Your task to perform on an android device: change alarm snooze length Image 0: 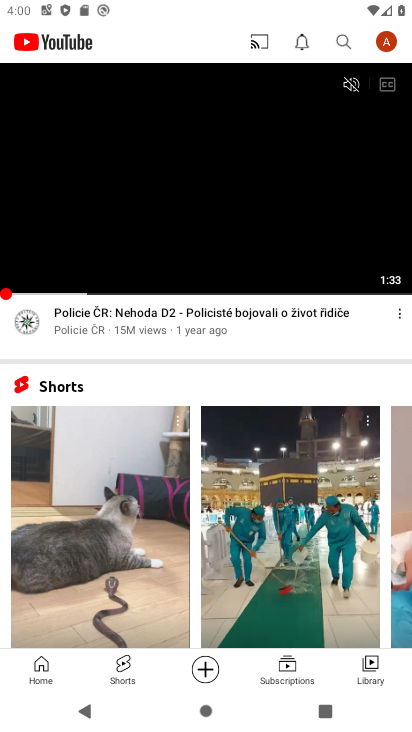
Step 0: press home button
Your task to perform on an android device: change alarm snooze length Image 1: 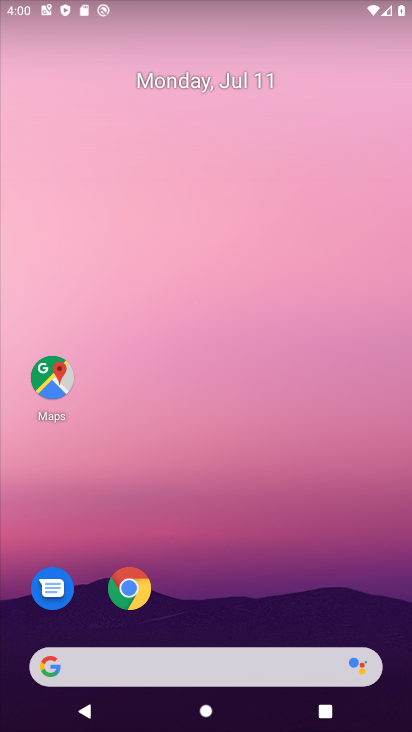
Step 1: drag from (325, 624) to (310, 184)
Your task to perform on an android device: change alarm snooze length Image 2: 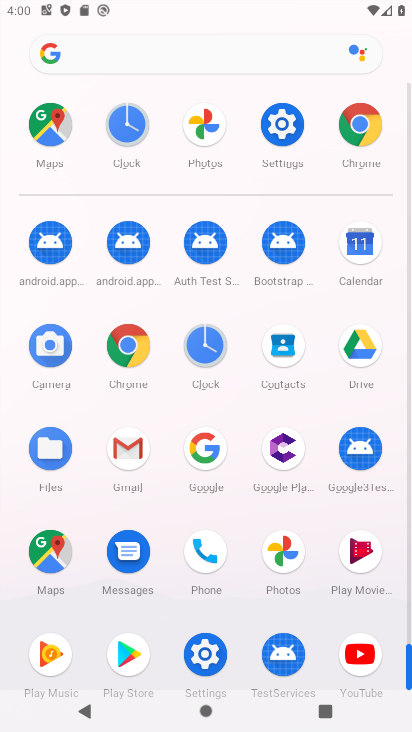
Step 2: click (204, 352)
Your task to perform on an android device: change alarm snooze length Image 3: 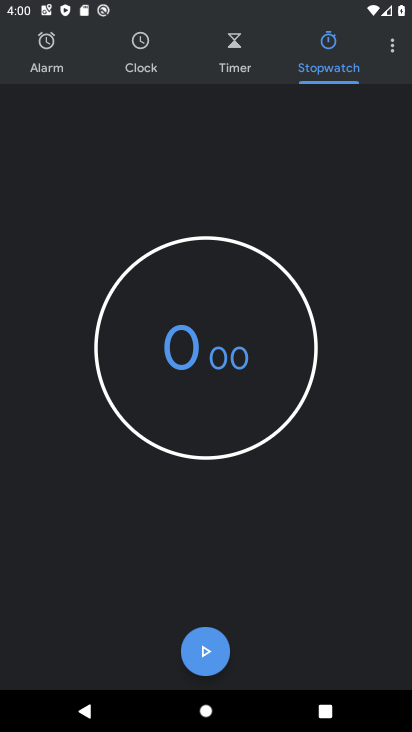
Step 3: click (388, 56)
Your task to perform on an android device: change alarm snooze length Image 4: 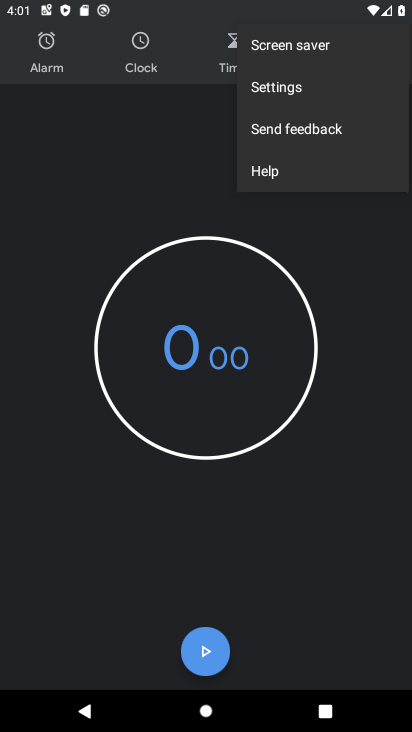
Step 4: click (313, 97)
Your task to perform on an android device: change alarm snooze length Image 5: 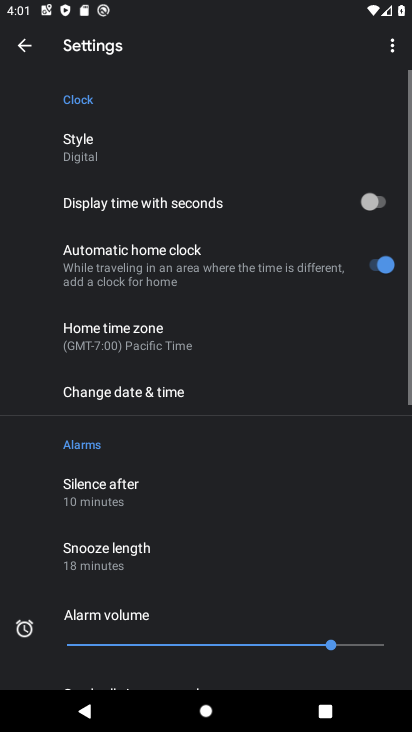
Step 5: drag from (331, 474) to (333, 371)
Your task to perform on an android device: change alarm snooze length Image 6: 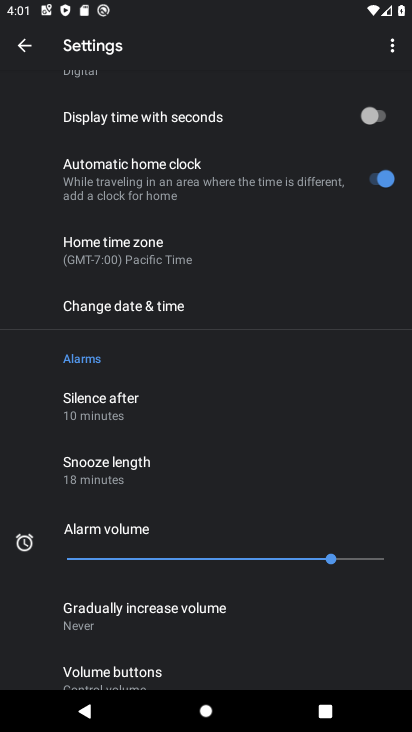
Step 6: drag from (328, 459) to (324, 302)
Your task to perform on an android device: change alarm snooze length Image 7: 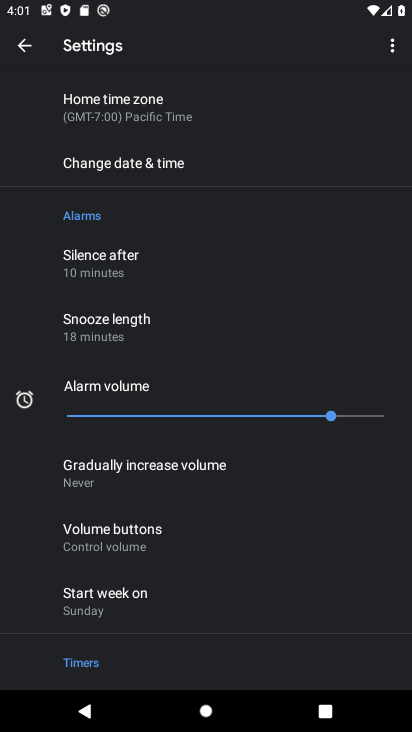
Step 7: drag from (320, 495) to (321, 382)
Your task to perform on an android device: change alarm snooze length Image 8: 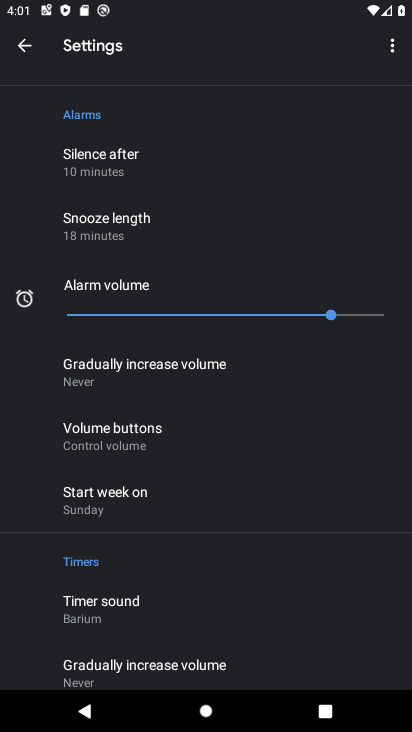
Step 8: drag from (327, 511) to (317, 384)
Your task to perform on an android device: change alarm snooze length Image 9: 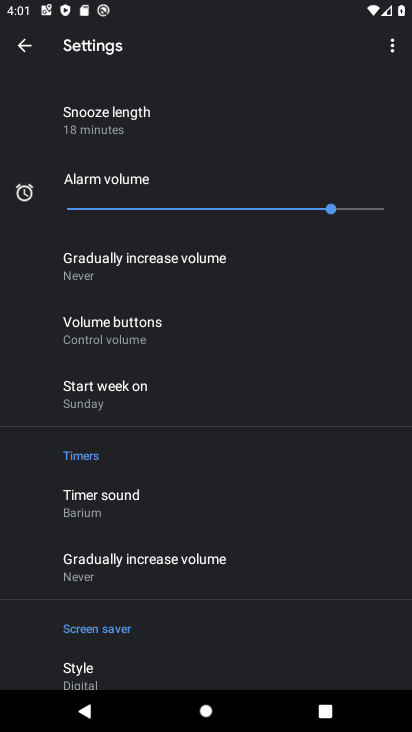
Step 9: drag from (313, 528) to (312, 365)
Your task to perform on an android device: change alarm snooze length Image 10: 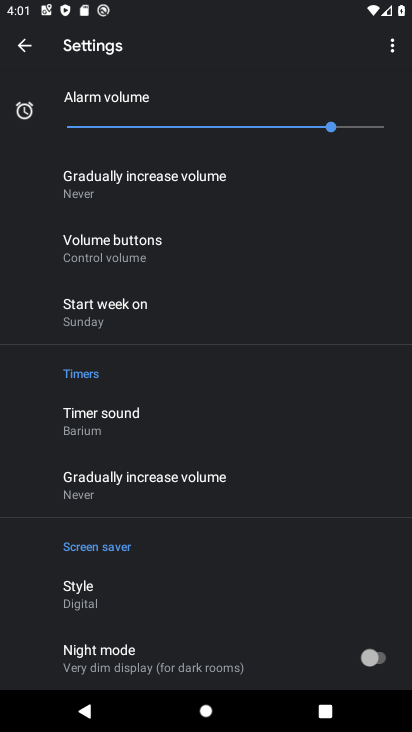
Step 10: drag from (317, 300) to (316, 394)
Your task to perform on an android device: change alarm snooze length Image 11: 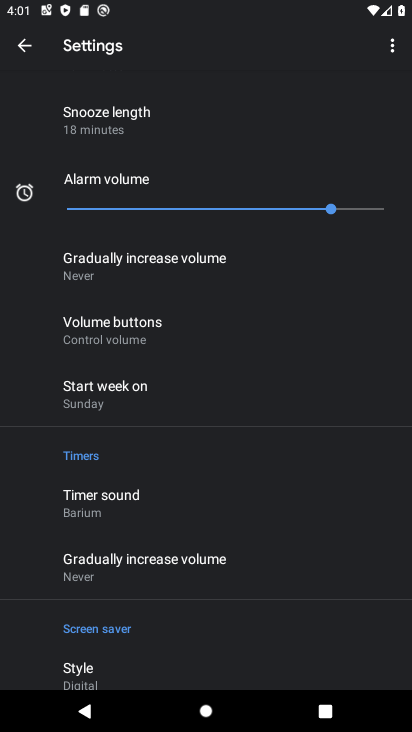
Step 11: drag from (302, 284) to (303, 402)
Your task to perform on an android device: change alarm snooze length Image 12: 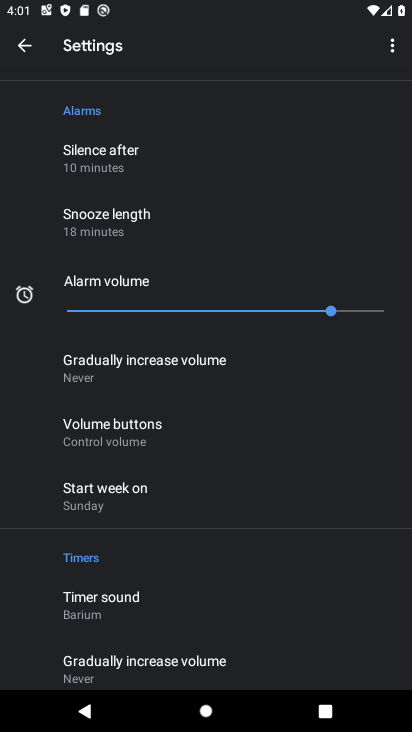
Step 12: drag from (277, 272) to (274, 375)
Your task to perform on an android device: change alarm snooze length Image 13: 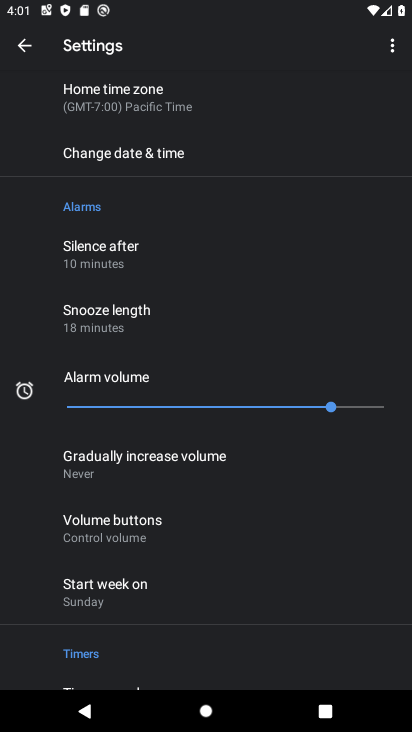
Step 13: drag from (216, 303) to (215, 441)
Your task to perform on an android device: change alarm snooze length Image 14: 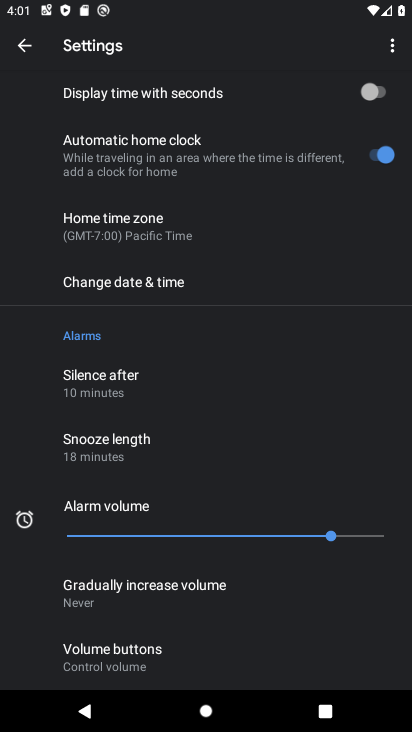
Step 14: click (181, 443)
Your task to perform on an android device: change alarm snooze length Image 15: 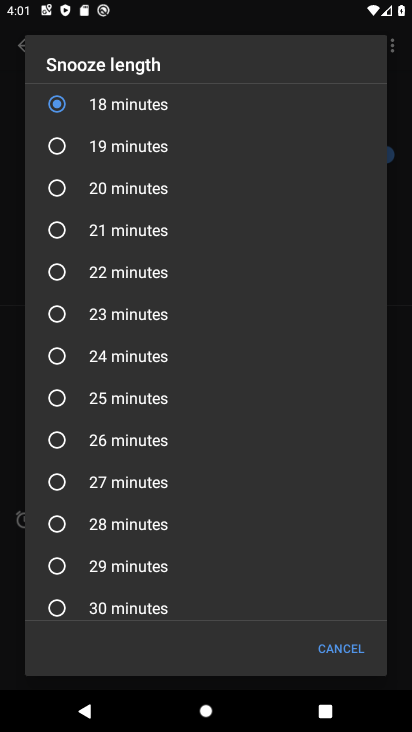
Step 15: click (128, 313)
Your task to perform on an android device: change alarm snooze length Image 16: 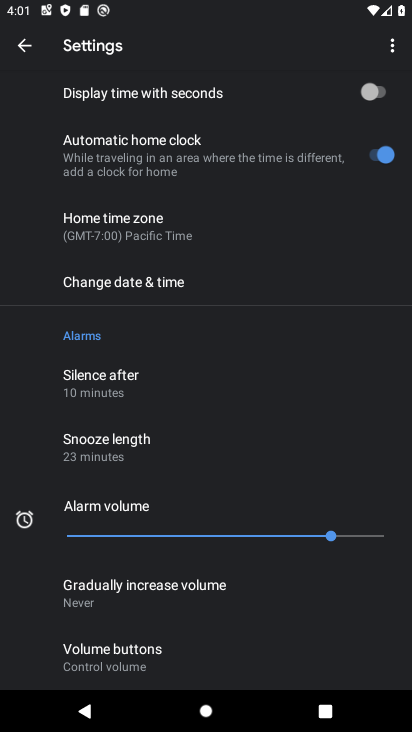
Step 16: task complete